Your task to perform on an android device: uninstall "Skype" Image 0: 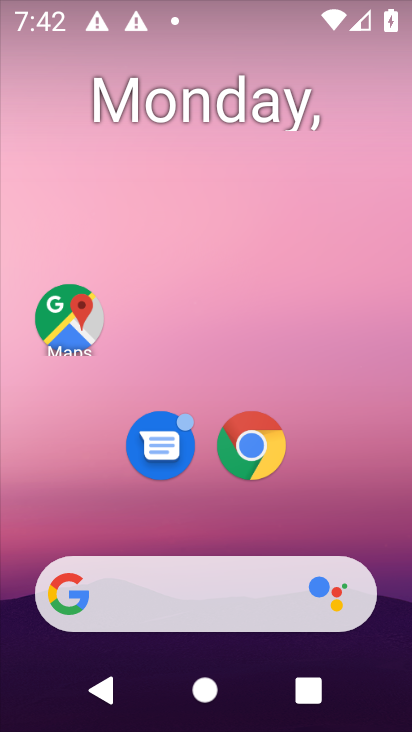
Step 0: drag from (392, 602) to (206, 42)
Your task to perform on an android device: uninstall "Skype" Image 1: 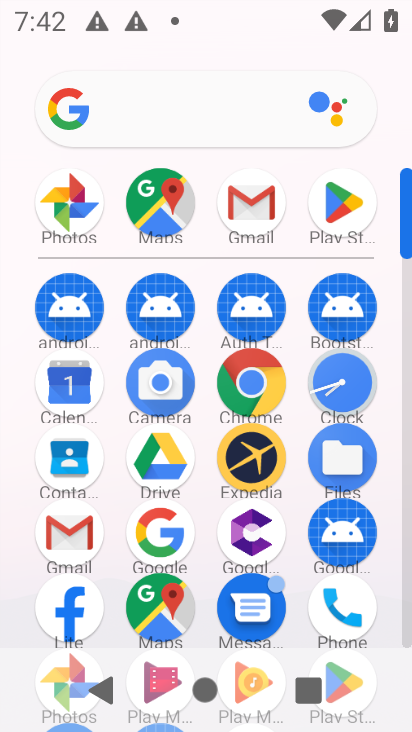
Step 1: click (356, 185)
Your task to perform on an android device: uninstall "Skype" Image 2: 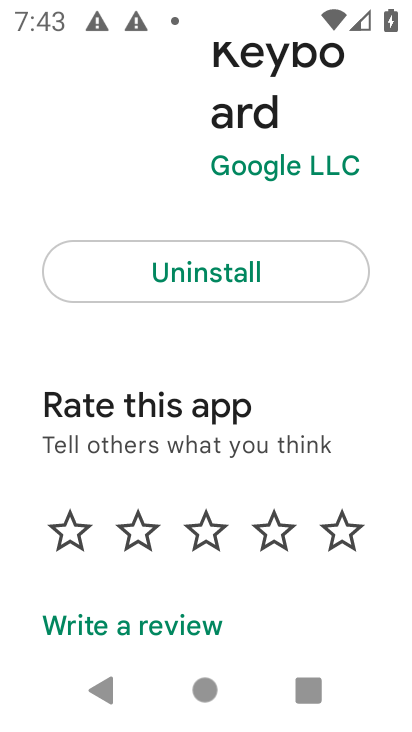
Step 2: press back button
Your task to perform on an android device: uninstall "Skype" Image 3: 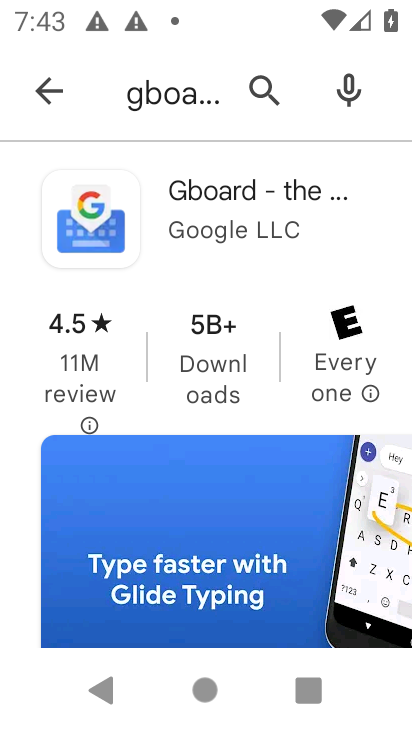
Step 3: press back button
Your task to perform on an android device: uninstall "Skype" Image 4: 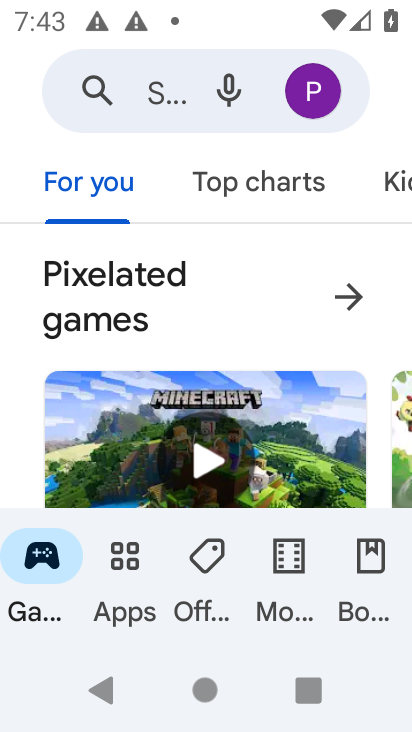
Step 4: click (151, 87)
Your task to perform on an android device: uninstall "Skype" Image 5: 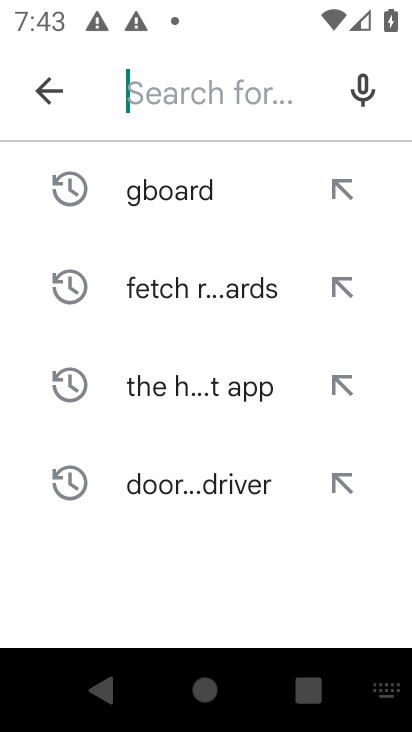
Step 5: type "Skype"
Your task to perform on an android device: uninstall "Skype" Image 6: 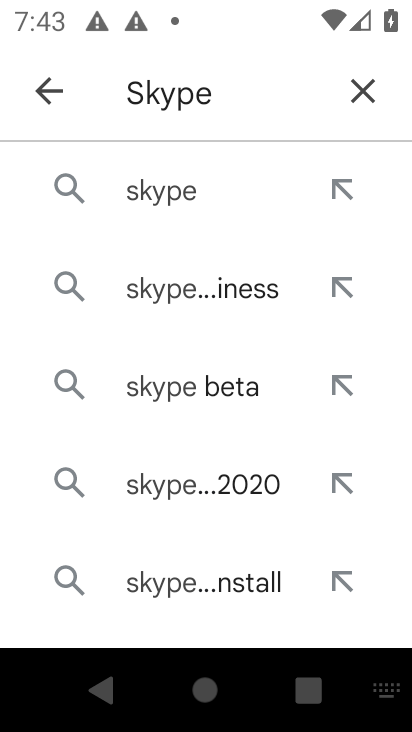
Step 6: click (178, 182)
Your task to perform on an android device: uninstall "Skype" Image 7: 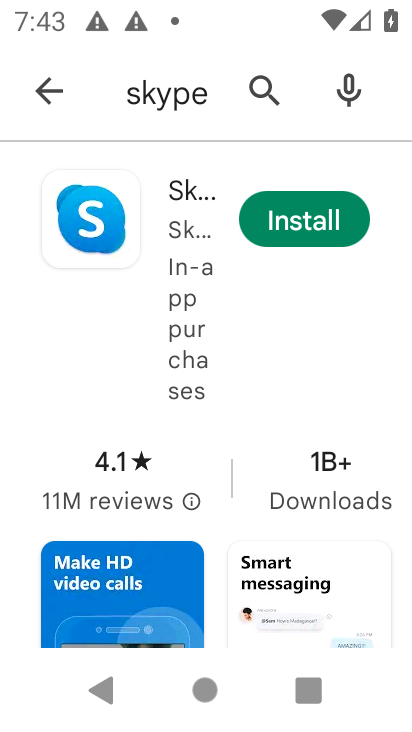
Step 7: task complete